Your task to perform on an android device: change the clock style Image 0: 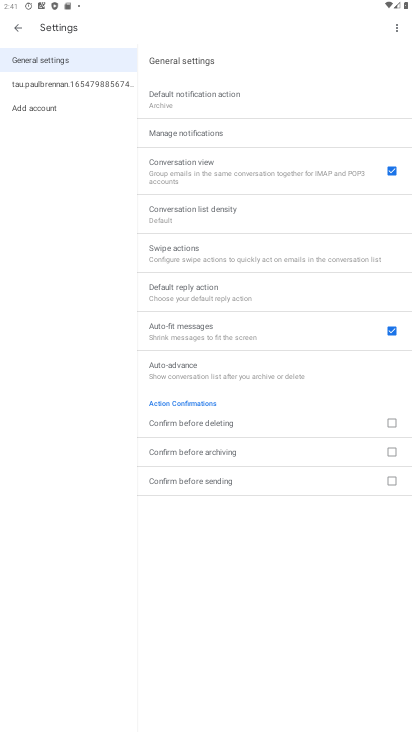
Step 0: drag from (243, 694) to (223, 253)
Your task to perform on an android device: change the clock style Image 1: 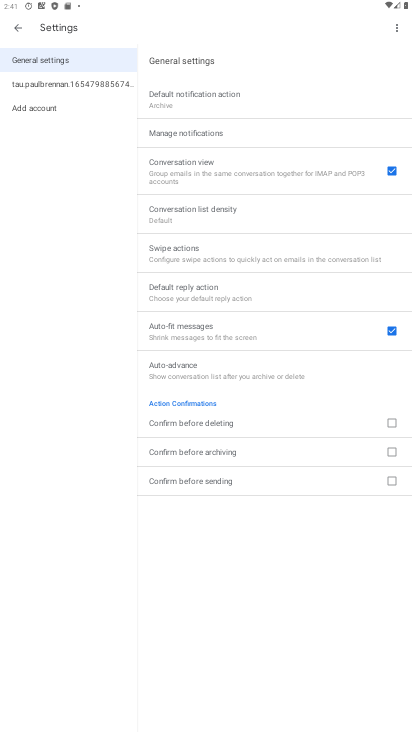
Step 1: press home button
Your task to perform on an android device: change the clock style Image 2: 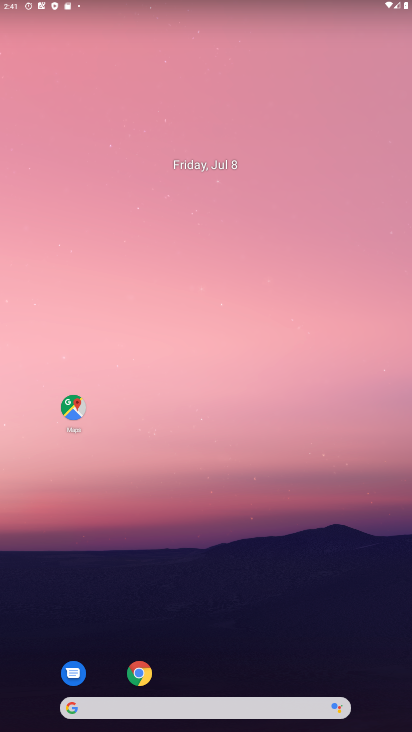
Step 2: drag from (195, 696) to (184, 345)
Your task to perform on an android device: change the clock style Image 3: 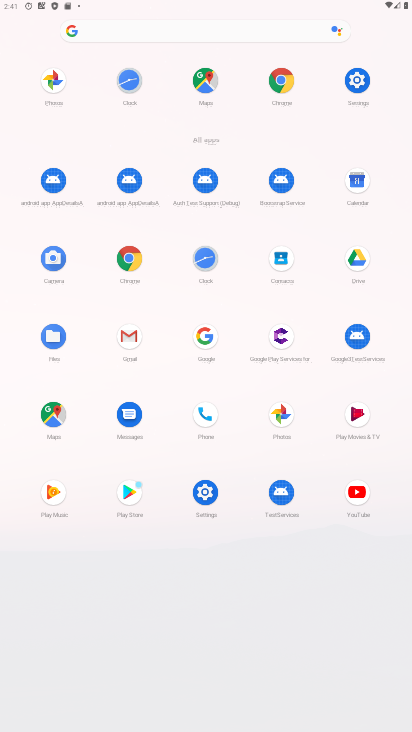
Step 3: click (207, 267)
Your task to perform on an android device: change the clock style Image 4: 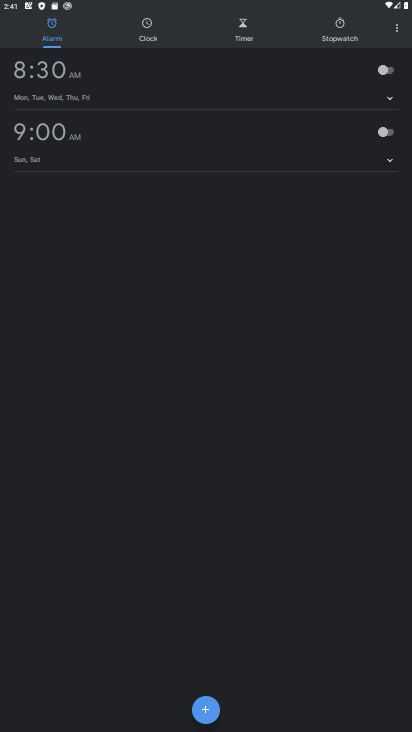
Step 4: click (397, 27)
Your task to perform on an android device: change the clock style Image 5: 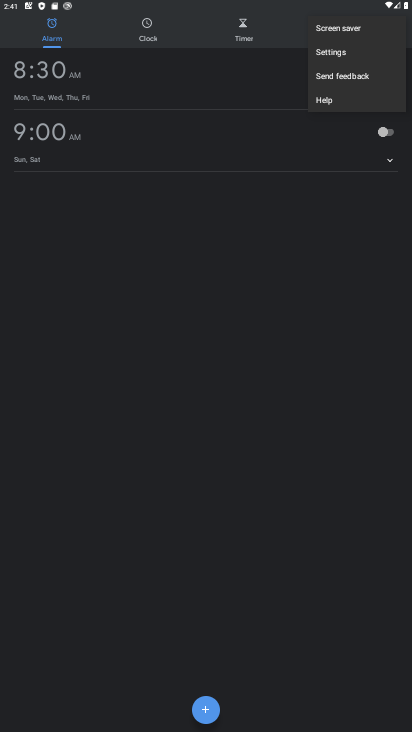
Step 5: click (340, 55)
Your task to perform on an android device: change the clock style Image 6: 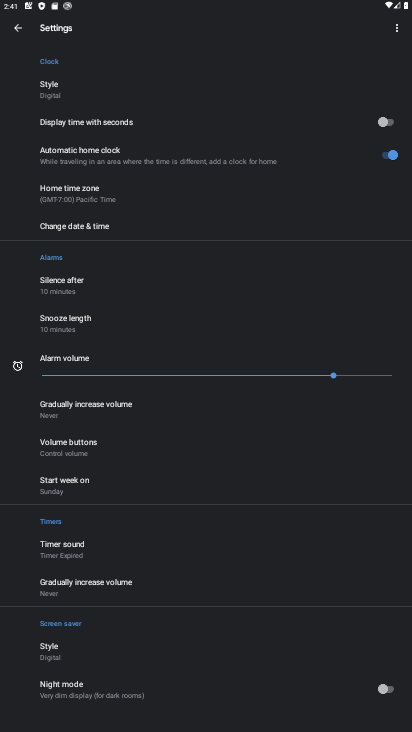
Step 6: click (61, 94)
Your task to perform on an android device: change the clock style Image 7: 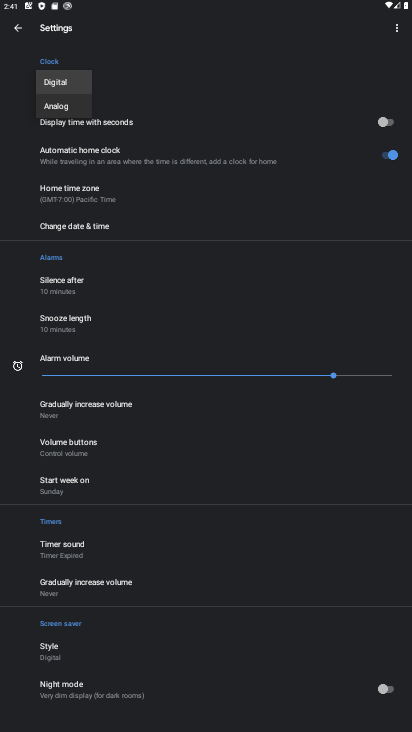
Step 7: click (68, 105)
Your task to perform on an android device: change the clock style Image 8: 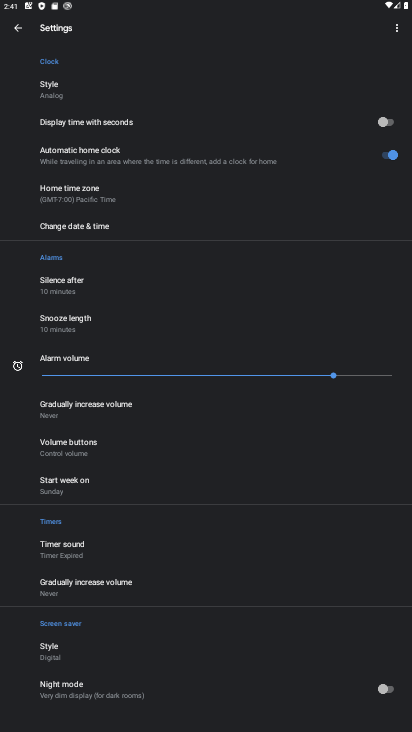
Step 8: task complete